Your task to perform on an android device: What is the news today? Image 0: 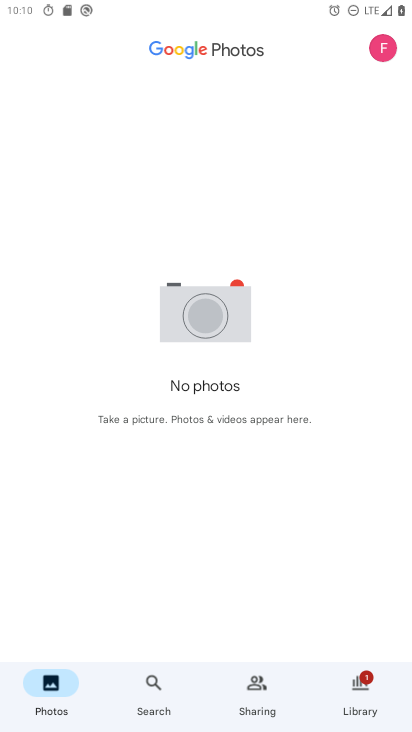
Step 0: press home button
Your task to perform on an android device: What is the news today? Image 1: 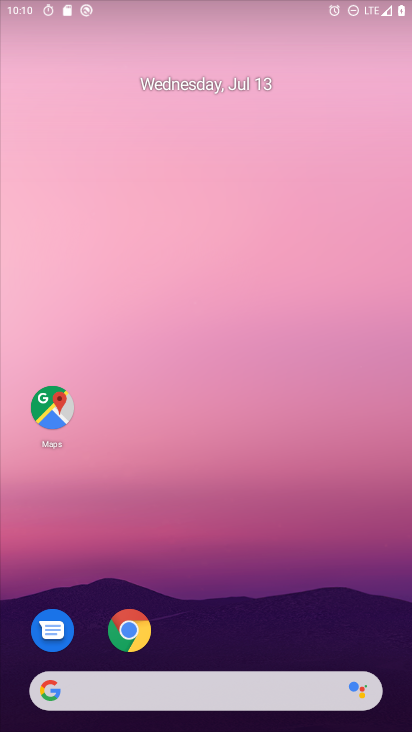
Step 1: drag from (379, 653) to (227, 1)
Your task to perform on an android device: What is the news today? Image 2: 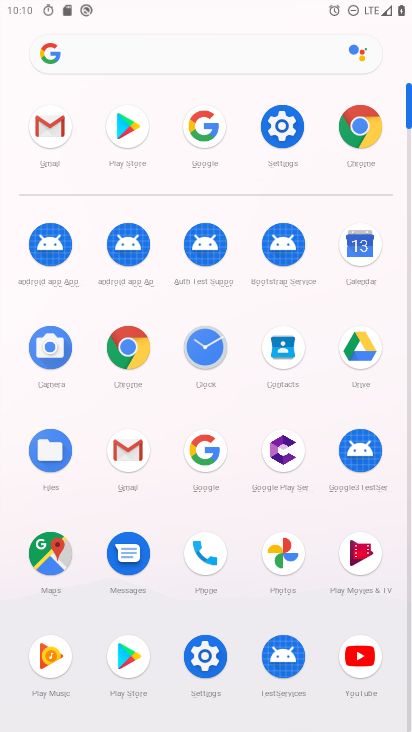
Step 2: click (200, 464)
Your task to perform on an android device: What is the news today? Image 3: 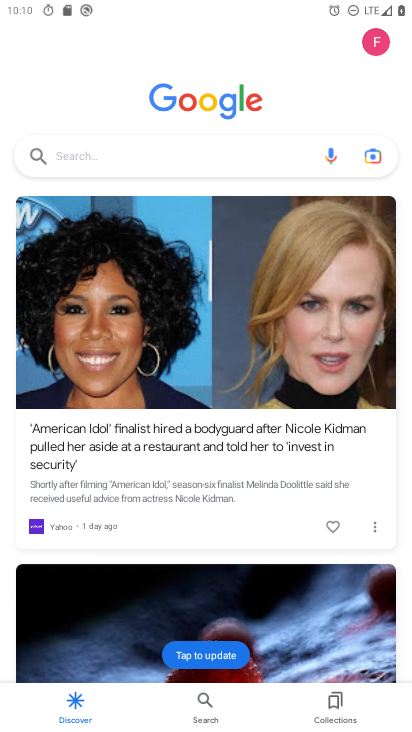
Step 3: click (171, 160)
Your task to perform on an android device: What is the news today? Image 4: 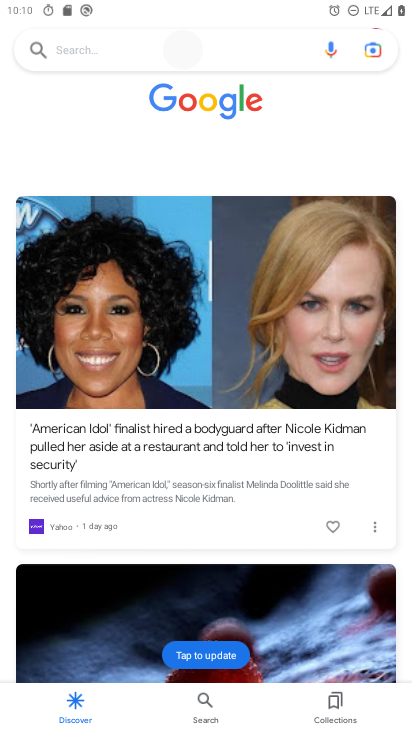
Step 4: click (171, 160)
Your task to perform on an android device: What is the news today? Image 5: 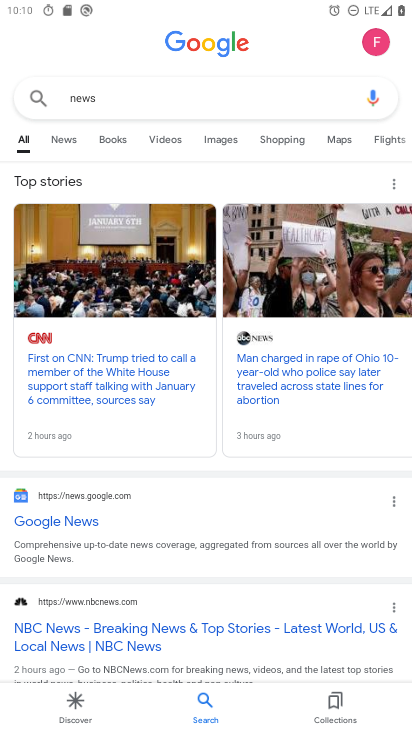
Step 5: task complete